Your task to perform on an android device: check google app version Image 0: 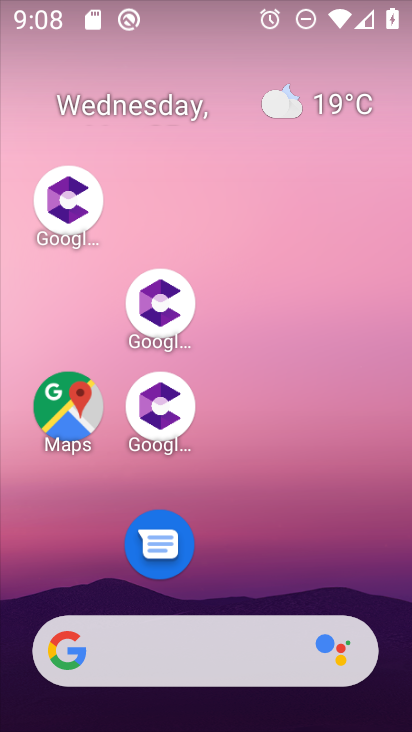
Step 0: click (406, 497)
Your task to perform on an android device: check google app version Image 1: 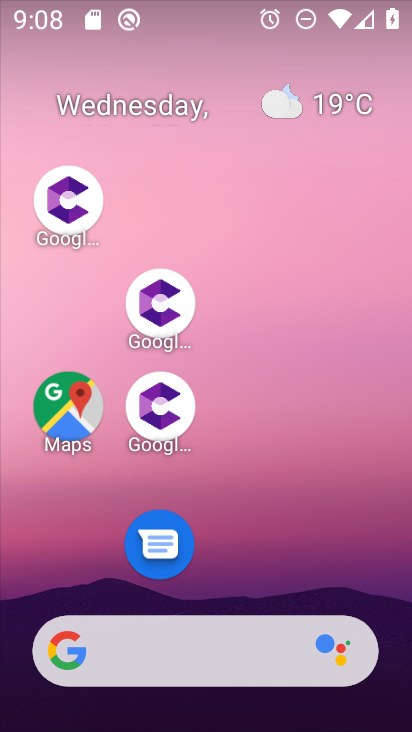
Step 1: drag from (265, 552) to (213, 56)
Your task to perform on an android device: check google app version Image 2: 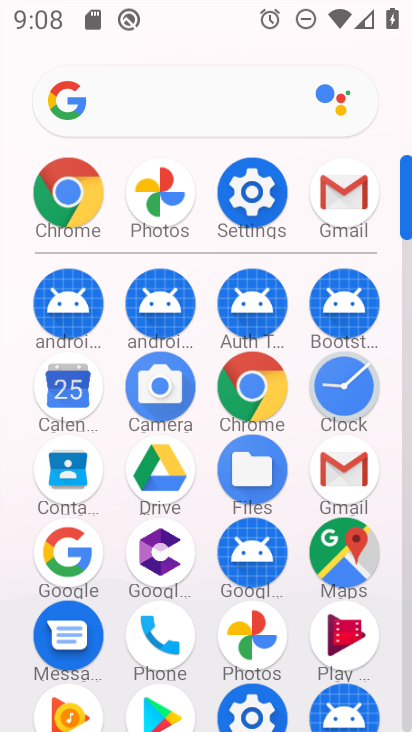
Step 2: click (67, 94)
Your task to perform on an android device: check google app version Image 3: 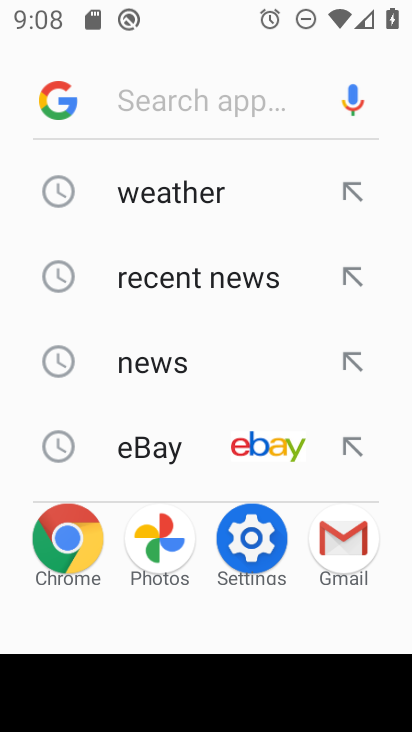
Step 3: click (179, 98)
Your task to perform on an android device: check google app version Image 4: 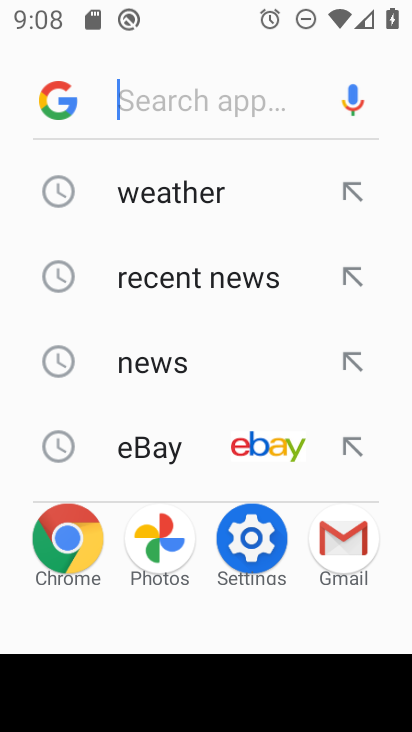
Step 4: click (56, 89)
Your task to perform on an android device: check google app version Image 5: 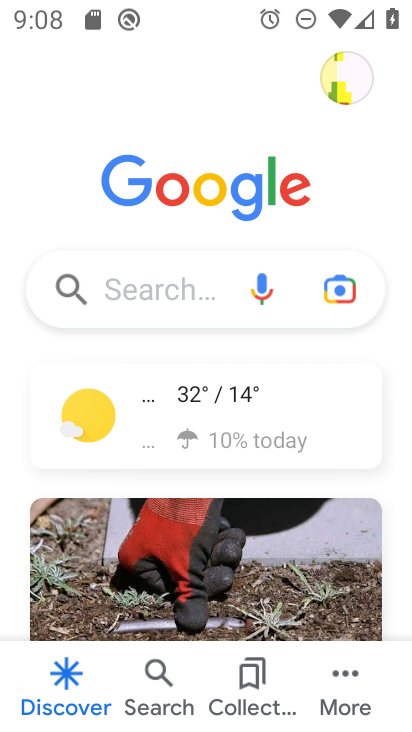
Step 5: click (350, 669)
Your task to perform on an android device: check google app version Image 6: 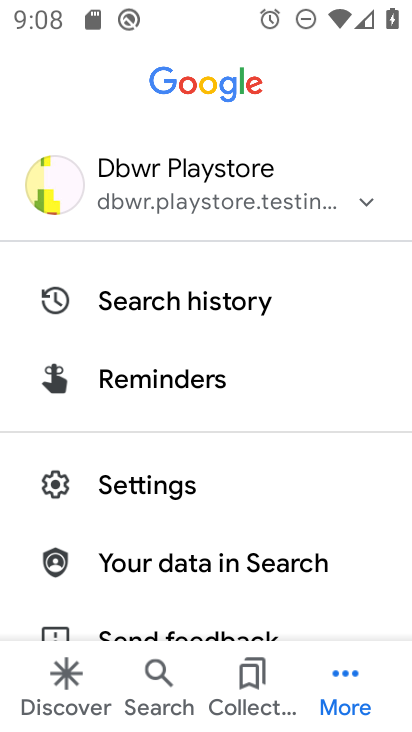
Step 6: click (158, 487)
Your task to perform on an android device: check google app version Image 7: 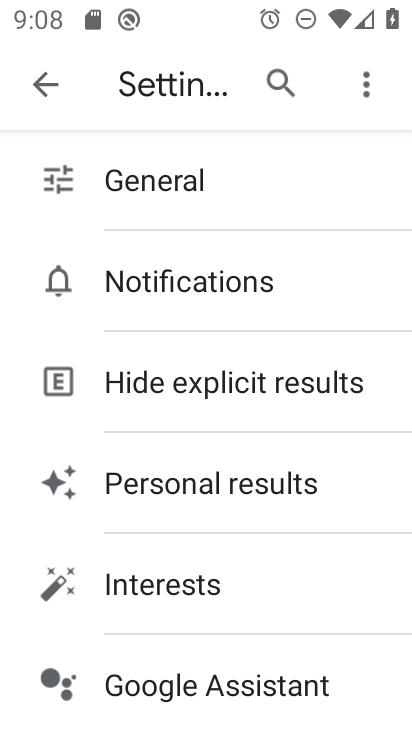
Step 7: drag from (243, 554) to (196, 215)
Your task to perform on an android device: check google app version Image 8: 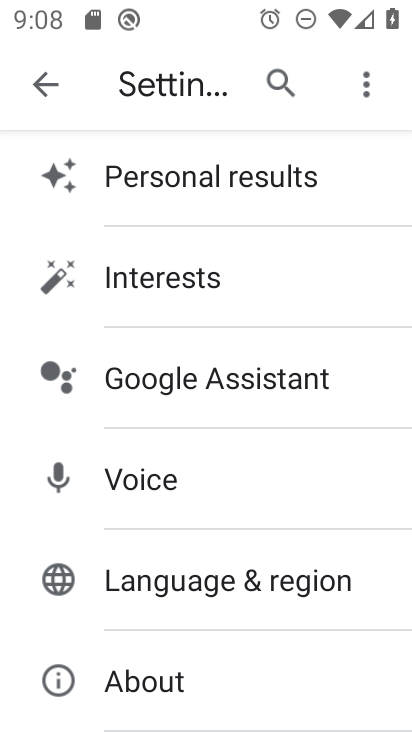
Step 8: drag from (210, 619) to (163, 364)
Your task to perform on an android device: check google app version Image 9: 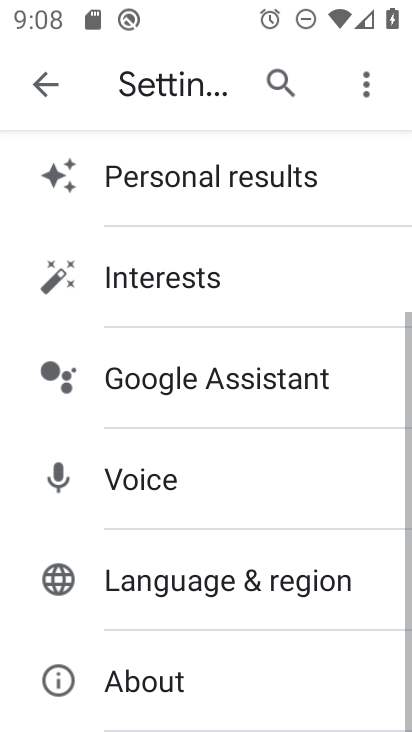
Step 9: click (150, 687)
Your task to perform on an android device: check google app version Image 10: 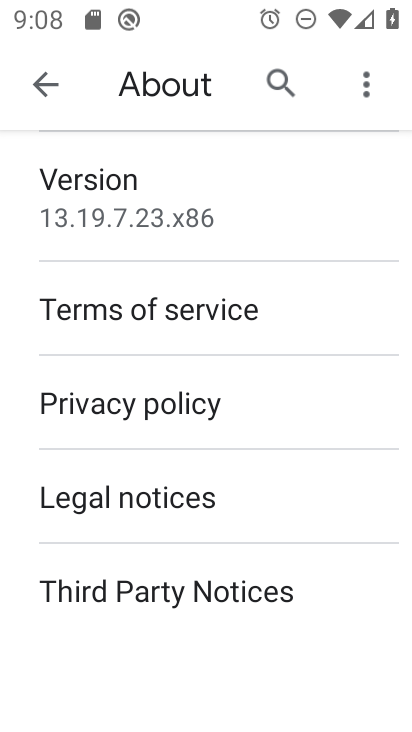
Step 10: click (114, 183)
Your task to perform on an android device: check google app version Image 11: 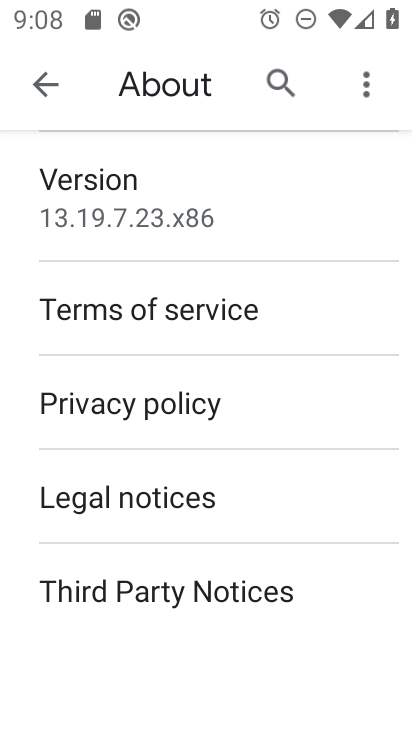
Step 11: task complete